Your task to perform on an android device: Go to wifi settings Image 0: 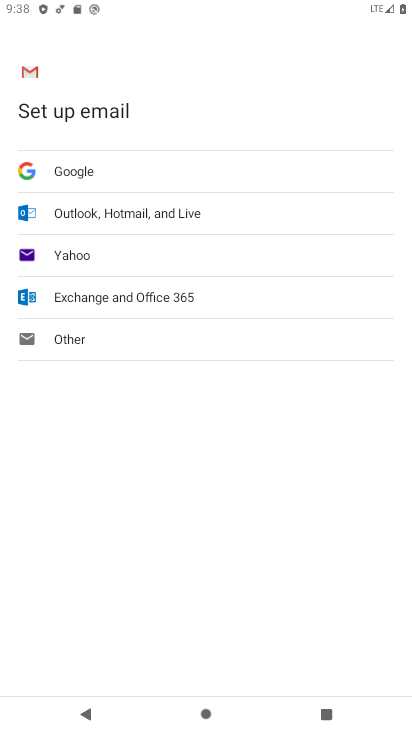
Step 0: press home button
Your task to perform on an android device: Go to wifi settings Image 1: 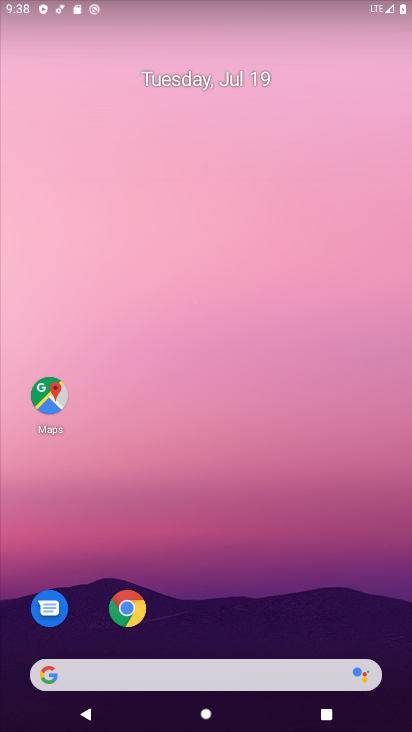
Step 1: press home button
Your task to perform on an android device: Go to wifi settings Image 2: 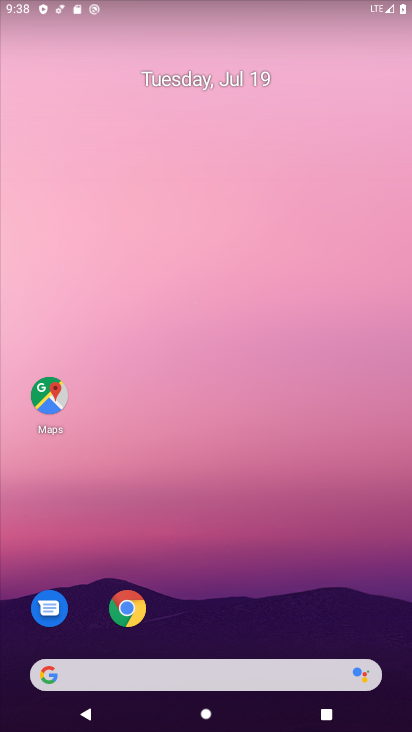
Step 2: drag from (234, 582) to (271, 123)
Your task to perform on an android device: Go to wifi settings Image 3: 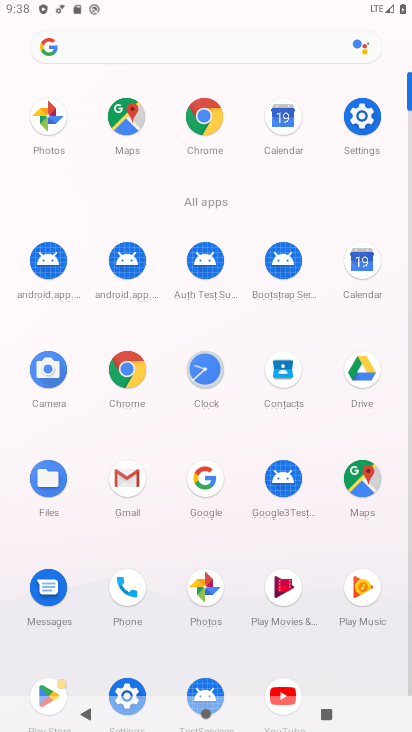
Step 3: click (376, 123)
Your task to perform on an android device: Go to wifi settings Image 4: 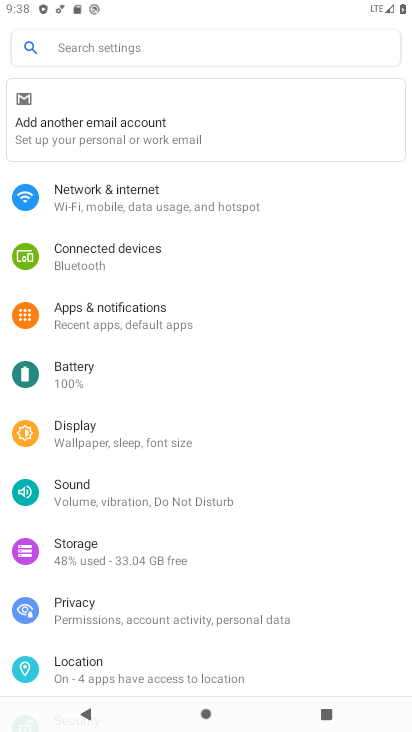
Step 4: click (171, 209)
Your task to perform on an android device: Go to wifi settings Image 5: 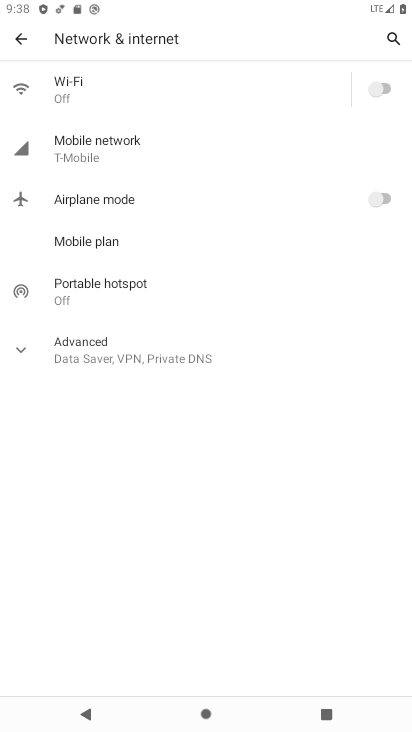
Step 5: click (122, 91)
Your task to perform on an android device: Go to wifi settings Image 6: 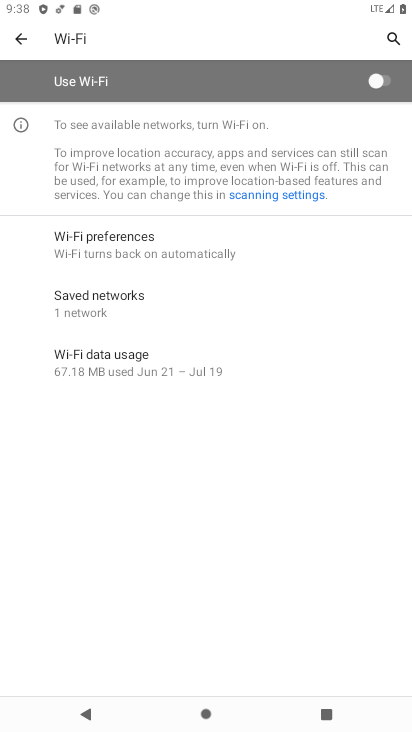
Step 6: task complete